Your task to perform on an android device: Open privacy settings Image 0: 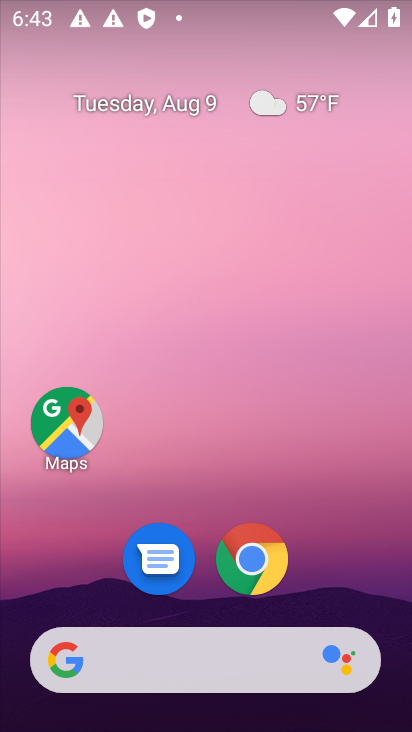
Step 0: click (157, 112)
Your task to perform on an android device: Open privacy settings Image 1: 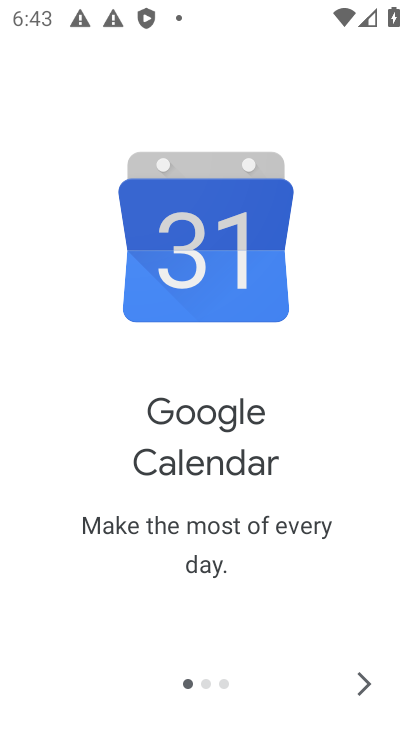
Step 1: press home button
Your task to perform on an android device: Open privacy settings Image 2: 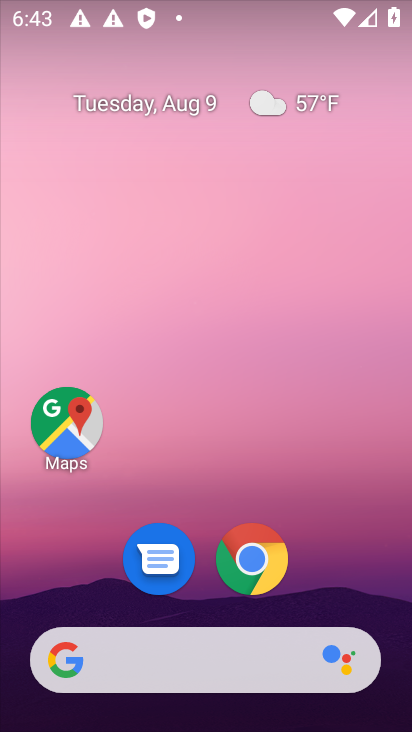
Step 2: drag from (193, 422) to (150, 105)
Your task to perform on an android device: Open privacy settings Image 3: 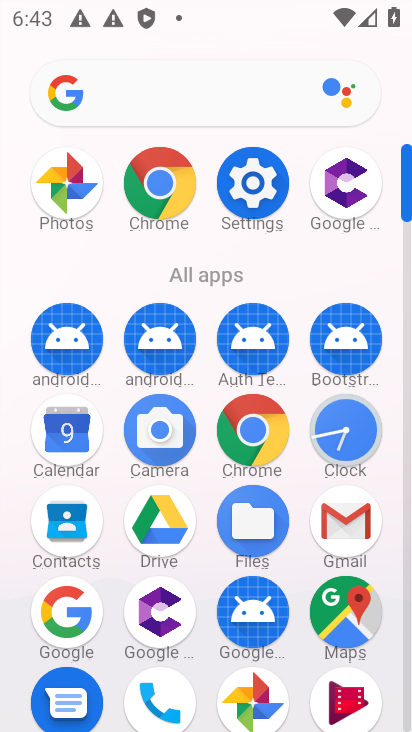
Step 3: click (249, 185)
Your task to perform on an android device: Open privacy settings Image 4: 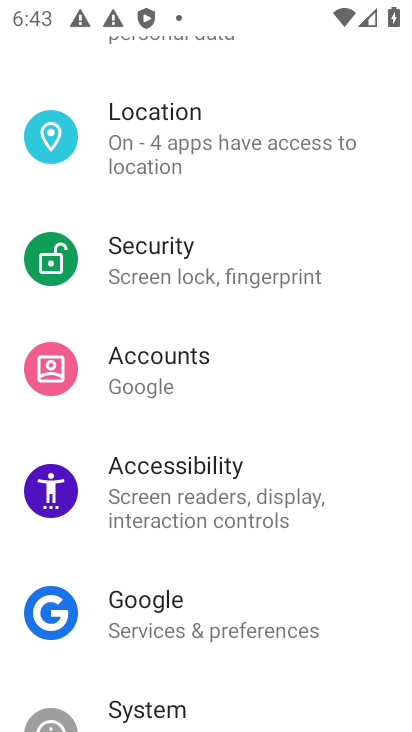
Step 4: drag from (257, 233) to (269, 606)
Your task to perform on an android device: Open privacy settings Image 5: 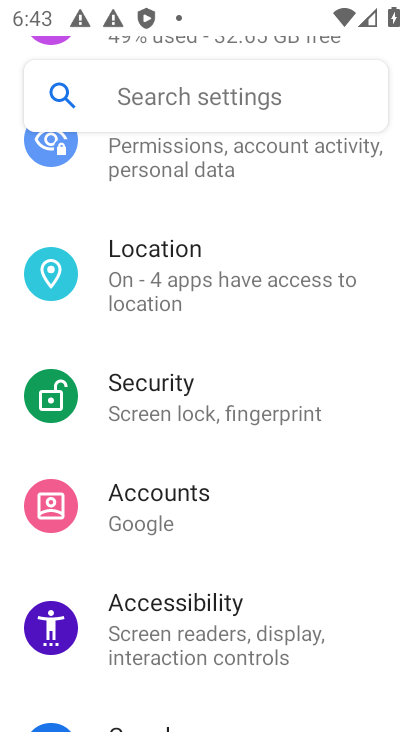
Step 5: drag from (249, 210) to (268, 594)
Your task to perform on an android device: Open privacy settings Image 6: 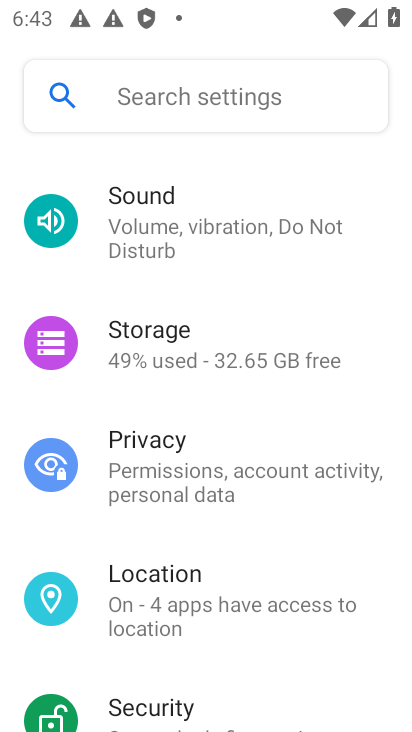
Step 6: drag from (268, 241) to (261, 692)
Your task to perform on an android device: Open privacy settings Image 7: 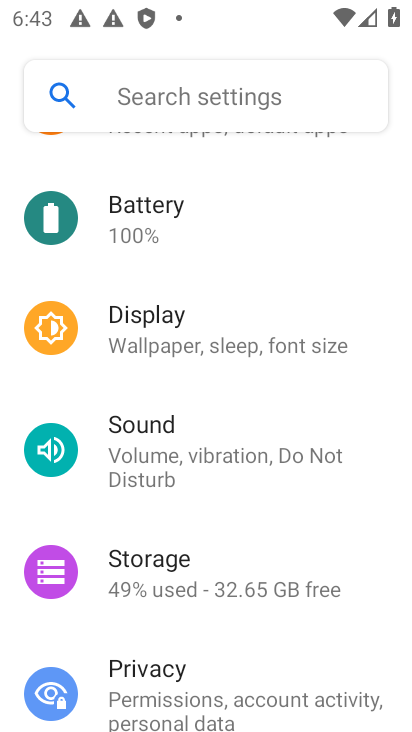
Step 7: click (154, 689)
Your task to perform on an android device: Open privacy settings Image 8: 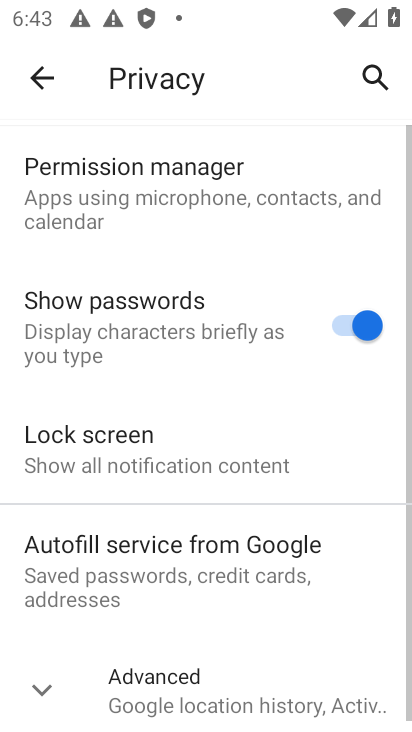
Step 8: task complete